Your task to perform on an android device: check out phone information Image 0: 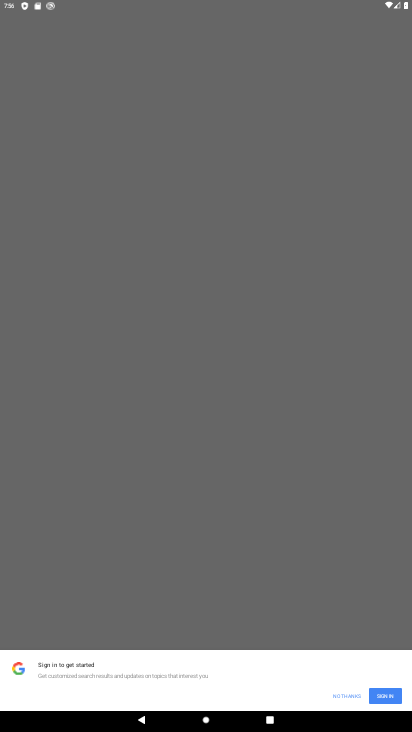
Step 0: press back button
Your task to perform on an android device: check out phone information Image 1: 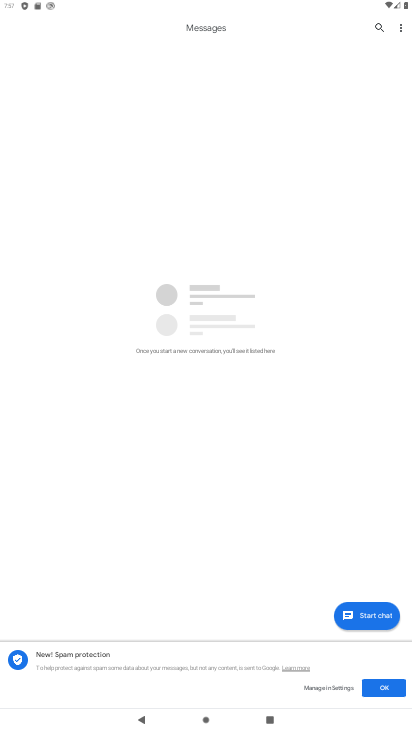
Step 1: press home button
Your task to perform on an android device: check out phone information Image 2: 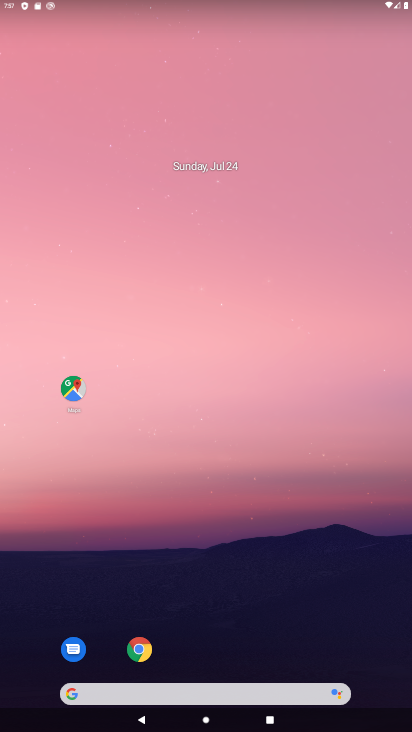
Step 2: drag from (214, 673) to (192, 4)
Your task to perform on an android device: check out phone information Image 3: 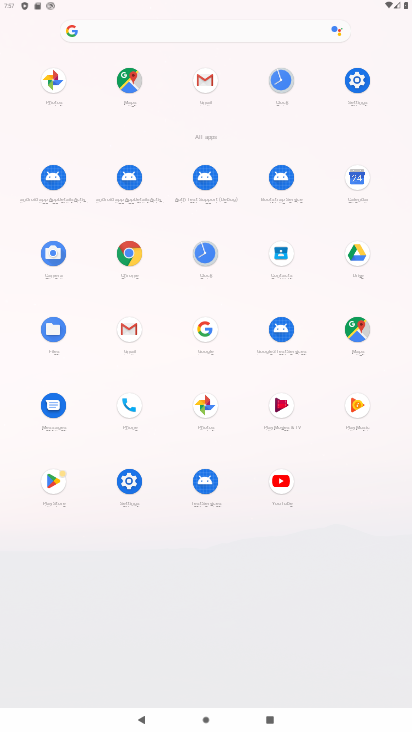
Step 3: click (352, 85)
Your task to perform on an android device: check out phone information Image 4: 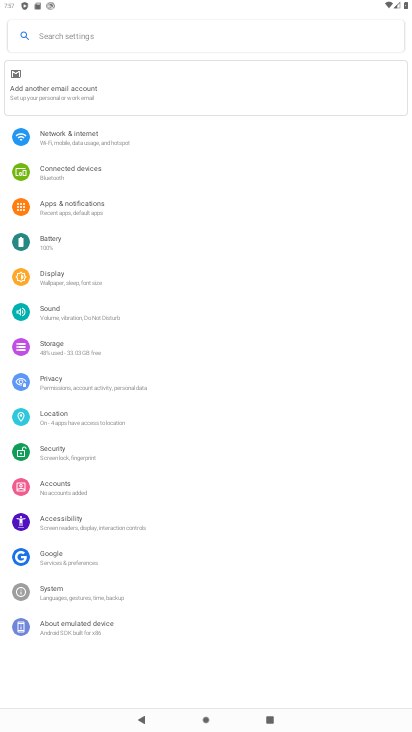
Step 4: task complete